Your task to perform on an android device: Open Google Maps and go to "Timeline" Image 0: 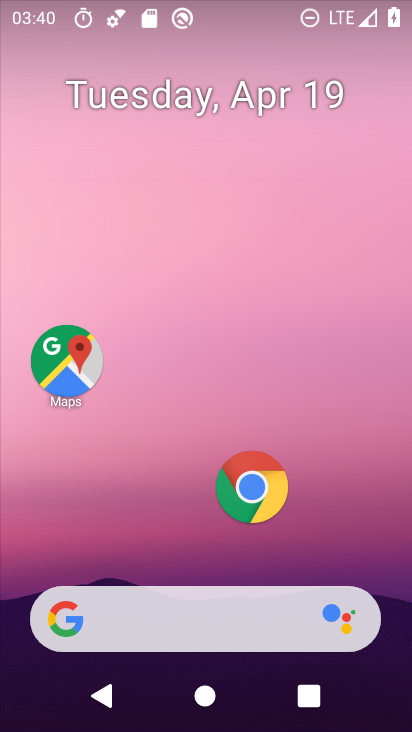
Step 0: drag from (170, 534) to (292, 21)
Your task to perform on an android device: Open Google Maps and go to "Timeline" Image 1: 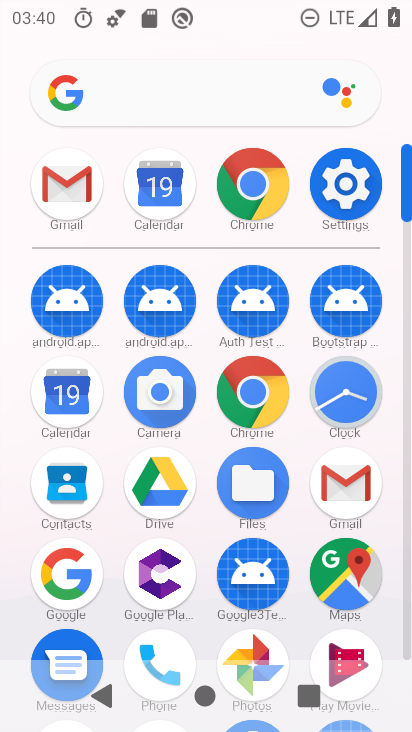
Step 1: click (337, 580)
Your task to perform on an android device: Open Google Maps and go to "Timeline" Image 2: 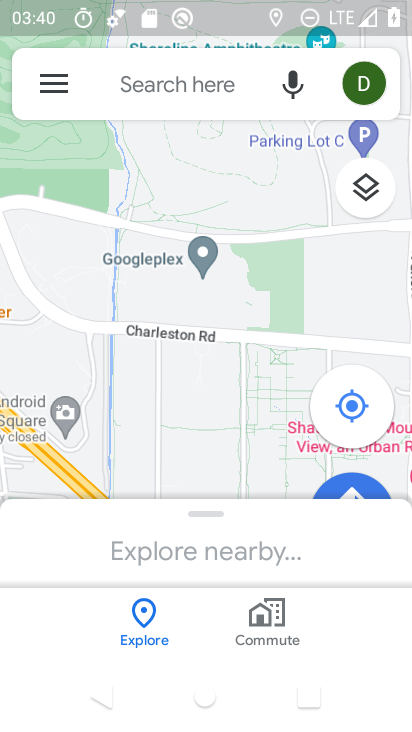
Step 2: click (57, 74)
Your task to perform on an android device: Open Google Maps and go to "Timeline" Image 3: 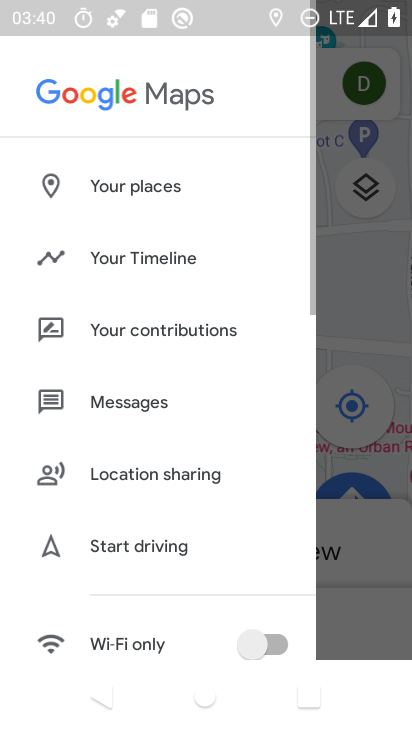
Step 3: click (128, 260)
Your task to perform on an android device: Open Google Maps and go to "Timeline" Image 4: 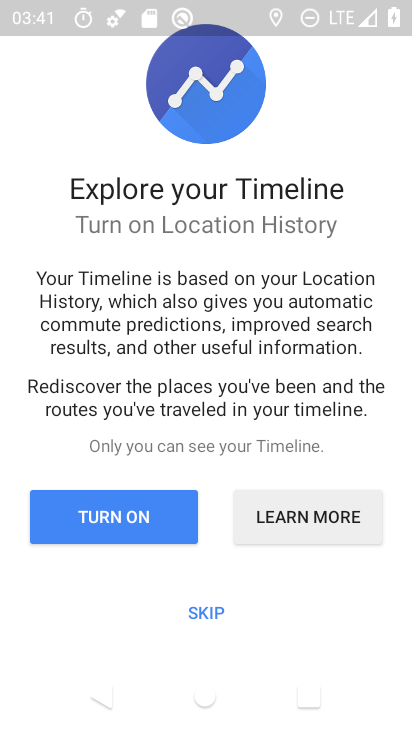
Step 4: click (200, 601)
Your task to perform on an android device: Open Google Maps and go to "Timeline" Image 5: 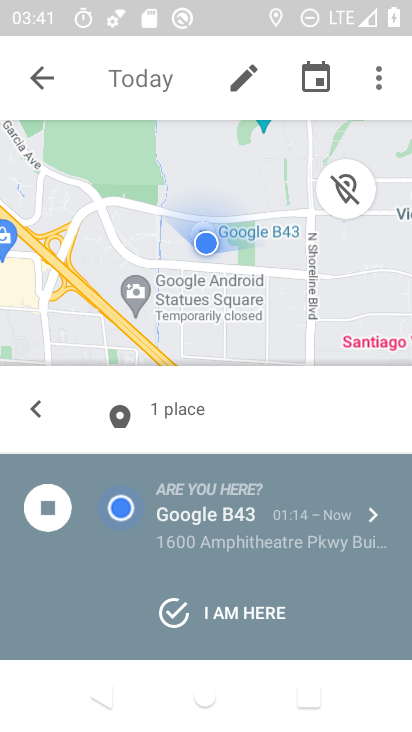
Step 5: task complete